Your task to perform on an android device: Open Chrome and go to settings Image 0: 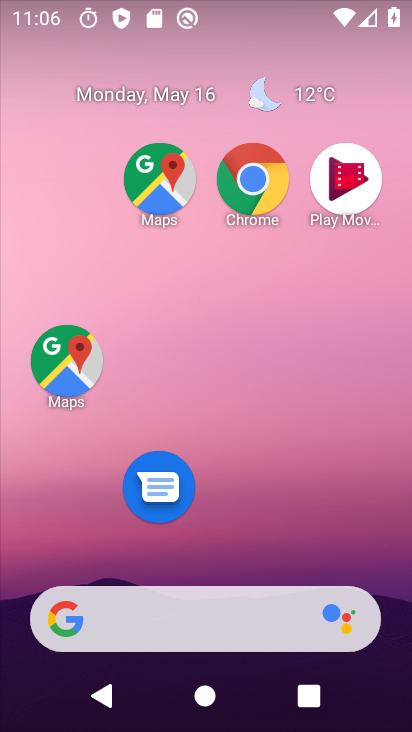
Step 0: click (247, 220)
Your task to perform on an android device: Open Chrome and go to settings Image 1: 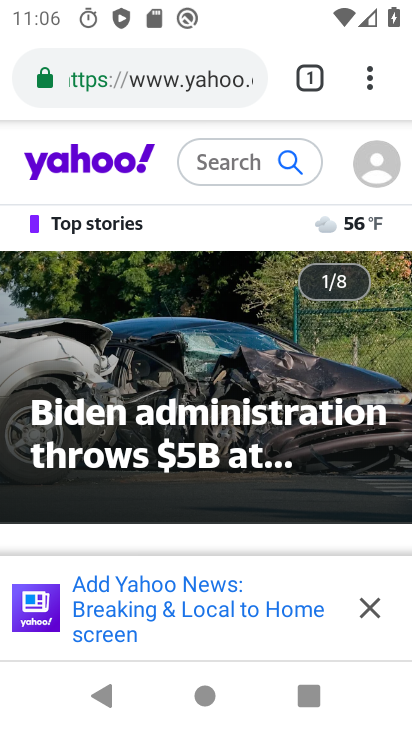
Step 1: click (368, 86)
Your task to perform on an android device: Open Chrome and go to settings Image 2: 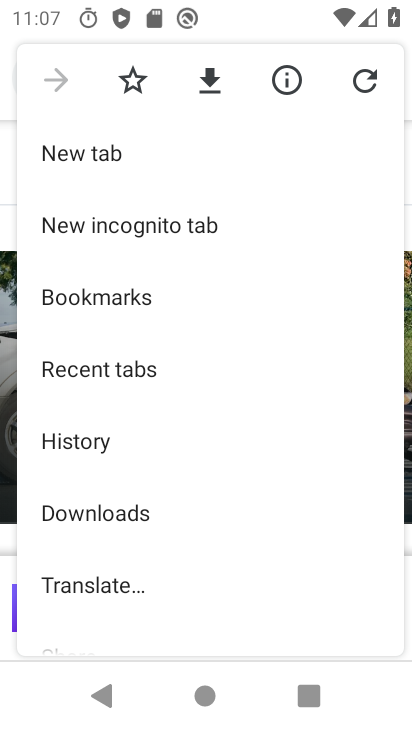
Step 2: drag from (105, 568) to (175, 125)
Your task to perform on an android device: Open Chrome and go to settings Image 3: 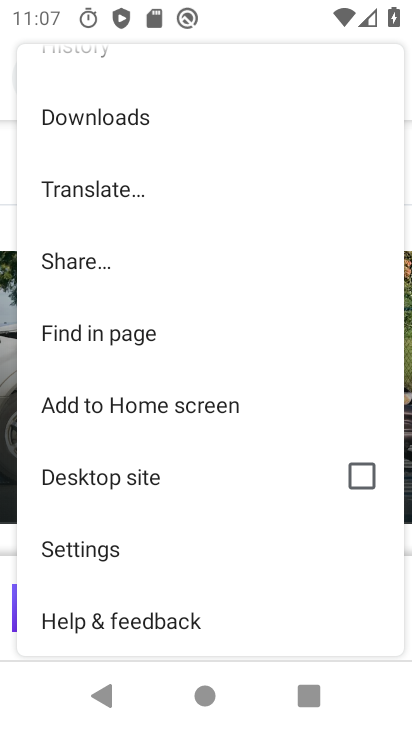
Step 3: click (89, 549)
Your task to perform on an android device: Open Chrome and go to settings Image 4: 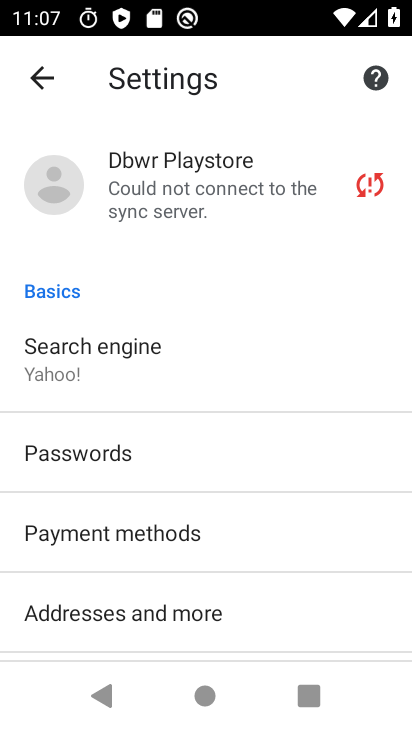
Step 4: task complete